Your task to perform on an android device: turn on sleep mode Image 0: 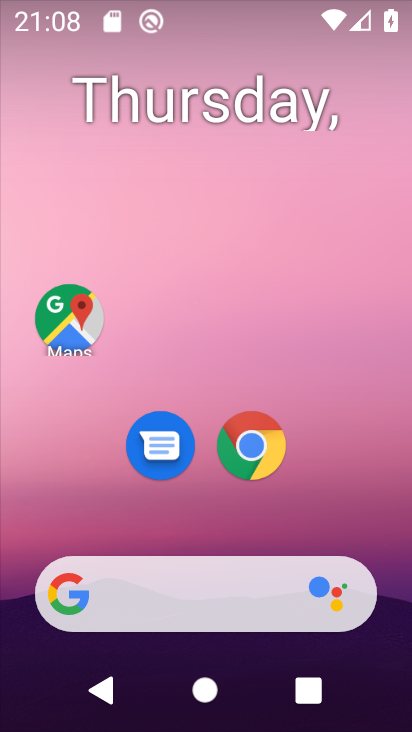
Step 0: drag from (307, 369) to (210, 111)
Your task to perform on an android device: turn on sleep mode Image 1: 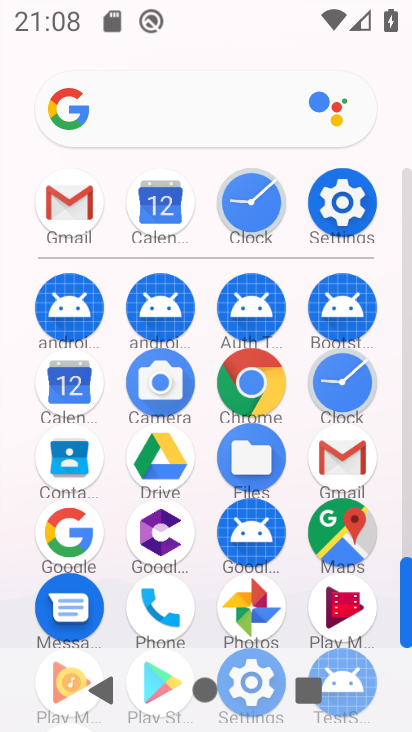
Step 1: click (345, 199)
Your task to perform on an android device: turn on sleep mode Image 2: 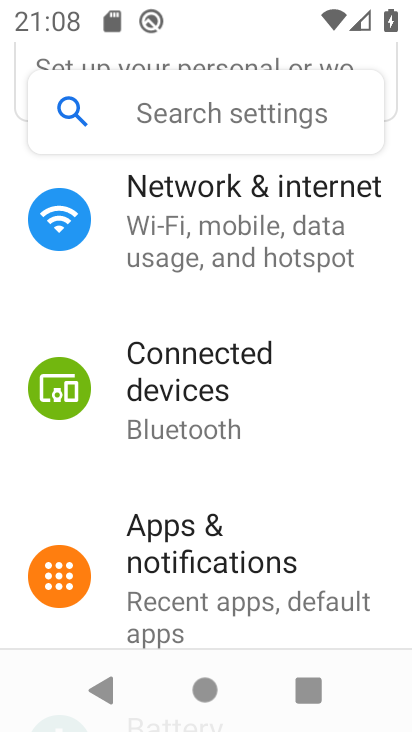
Step 2: drag from (205, 616) to (185, 265)
Your task to perform on an android device: turn on sleep mode Image 3: 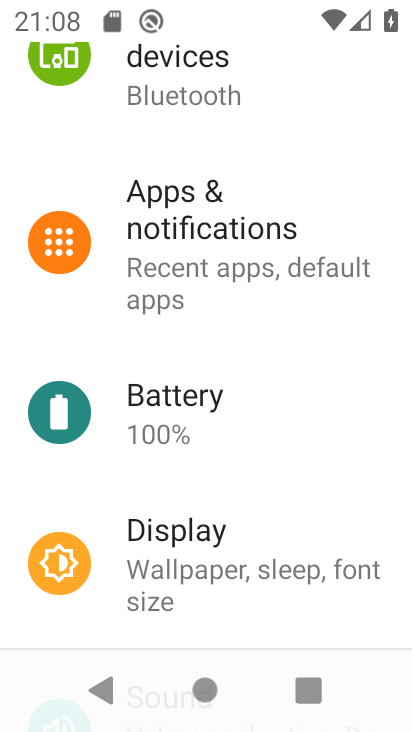
Step 3: click (219, 552)
Your task to perform on an android device: turn on sleep mode Image 4: 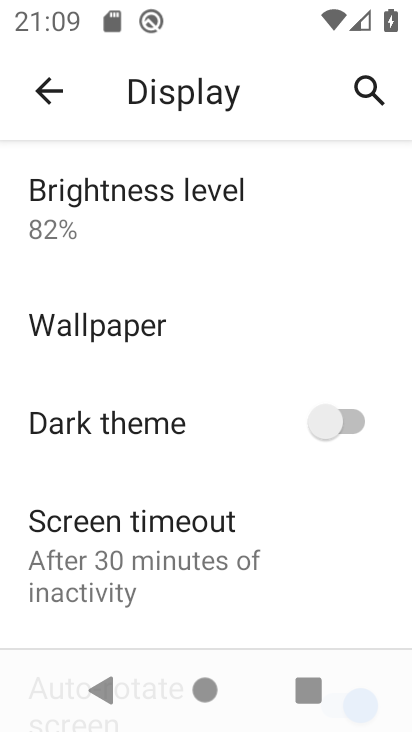
Step 4: drag from (239, 563) to (231, 195)
Your task to perform on an android device: turn on sleep mode Image 5: 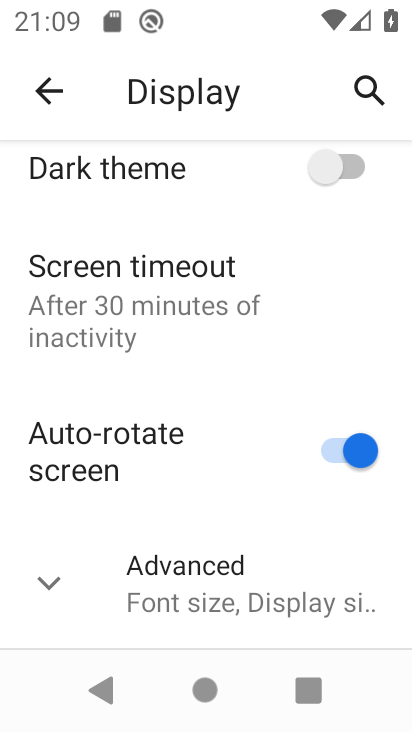
Step 5: click (182, 599)
Your task to perform on an android device: turn on sleep mode Image 6: 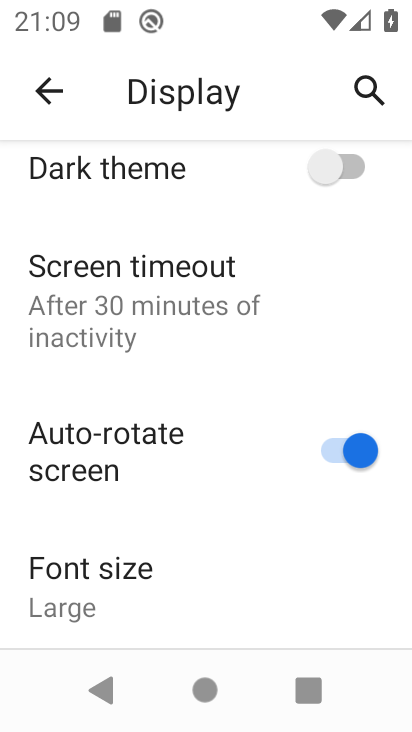
Step 6: task complete